Your task to perform on an android device: change your default location settings in chrome Image 0: 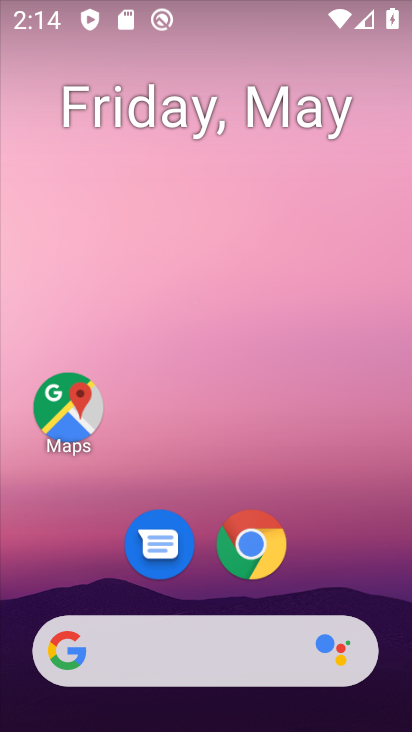
Step 0: click (263, 543)
Your task to perform on an android device: change your default location settings in chrome Image 1: 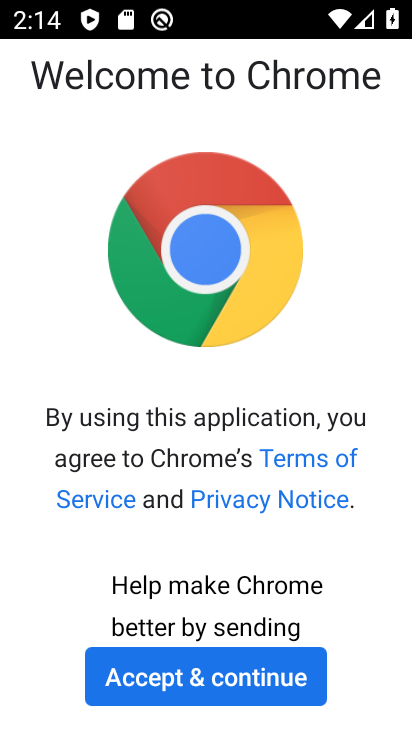
Step 1: click (190, 689)
Your task to perform on an android device: change your default location settings in chrome Image 2: 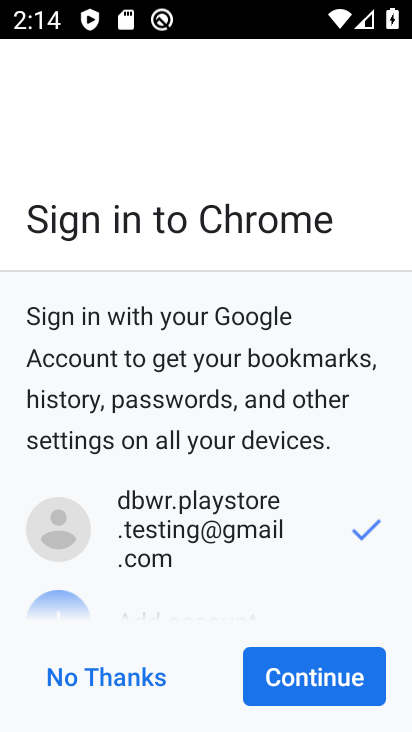
Step 2: click (299, 673)
Your task to perform on an android device: change your default location settings in chrome Image 3: 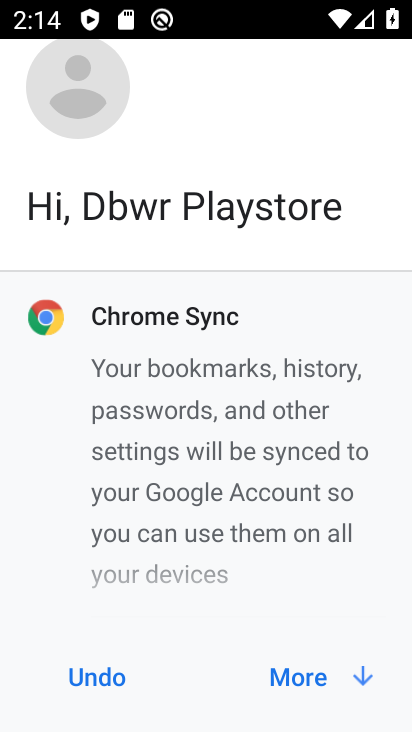
Step 3: click (305, 670)
Your task to perform on an android device: change your default location settings in chrome Image 4: 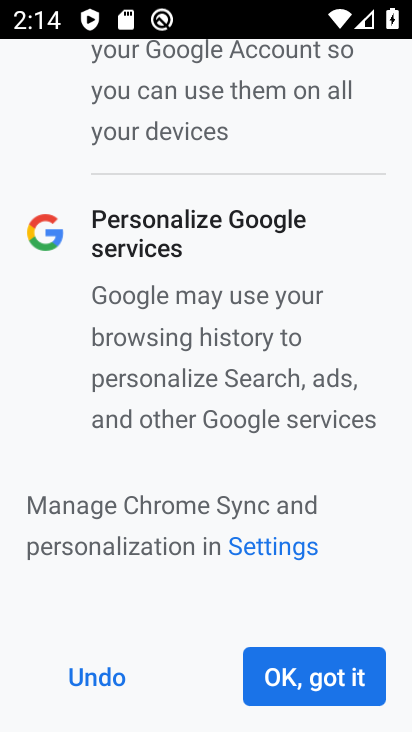
Step 4: click (333, 666)
Your task to perform on an android device: change your default location settings in chrome Image 5: 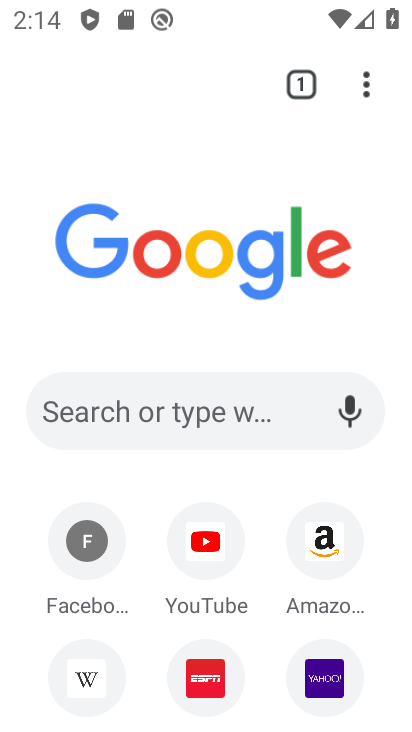
Step 5: drag from (363, 73) to (92, 593)
Your task to perform on an android device: change your default location settings in chrome Image 6: 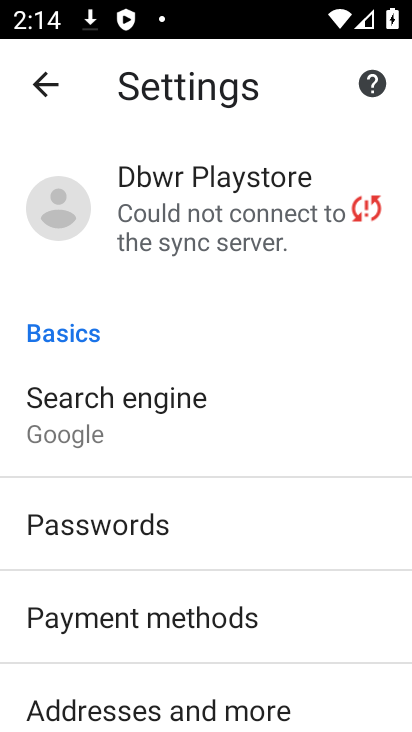
Step 6: drag from (105, 591) to (205, 187)
Your task to perform on an android device: change your default location settings in chrome Image 7: 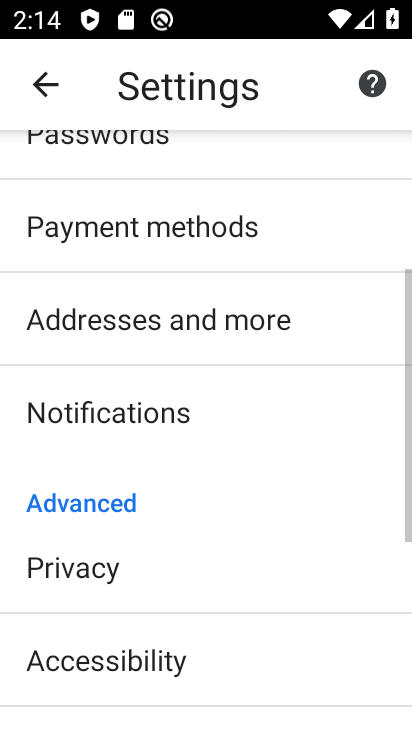
Step 7: drag from (154, 697) to (290, 196)
Your task to perform on an android device: change your default location settings in chrome Image 8: 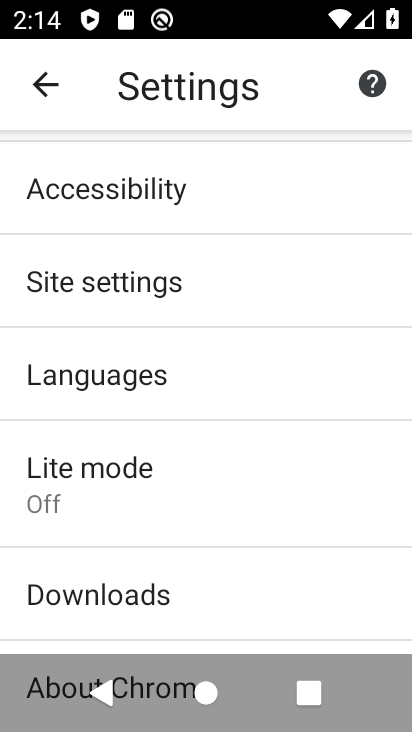
Step 8: click (121, 274)
Your task to perform on an android device: change your default location settings in chrome Image 9: 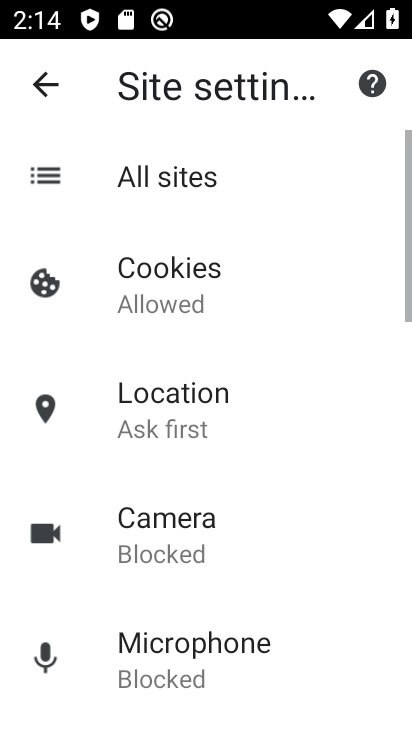
Step 9: click (185, 419)
Your task to perform on an android device: change your default location settings in chrome Image 10: 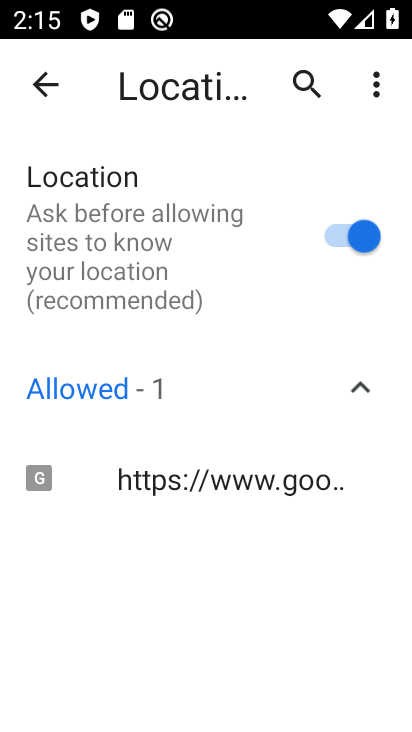
Step 10: click (337, 241)
Your task to perform on an android device: change your default location settings in chrome Image 11: 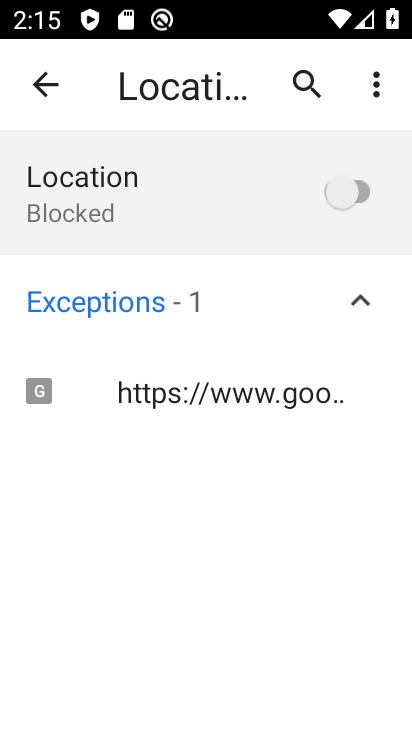
Step 11: task complete